Your task to perform on an android device: open app "Venmo" (install if not already installed) Image 0: 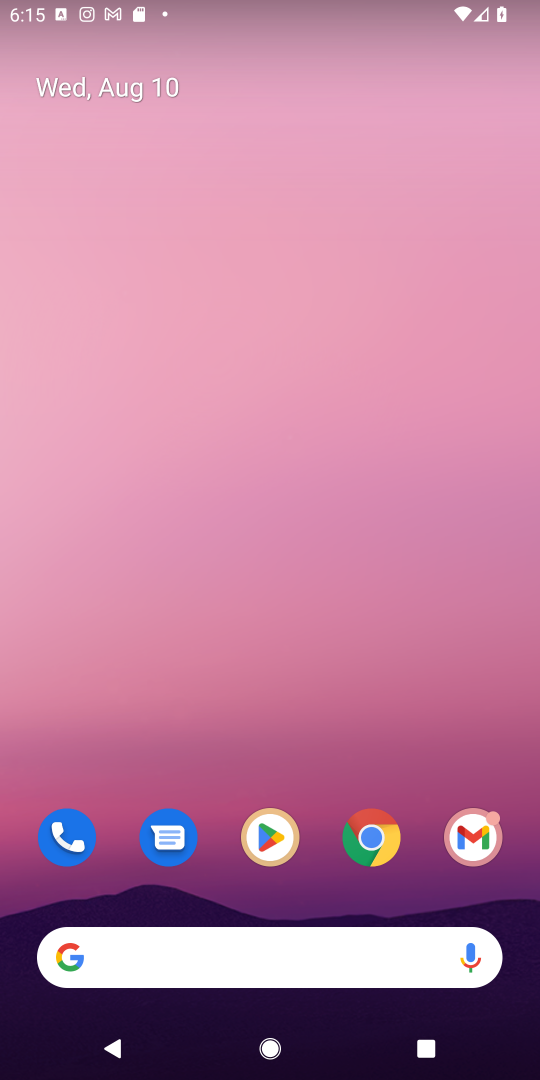
Step 0: click (269, 831)
Your task to perform on an android device: open app "Venmo" (install if not already installed) Image 1: 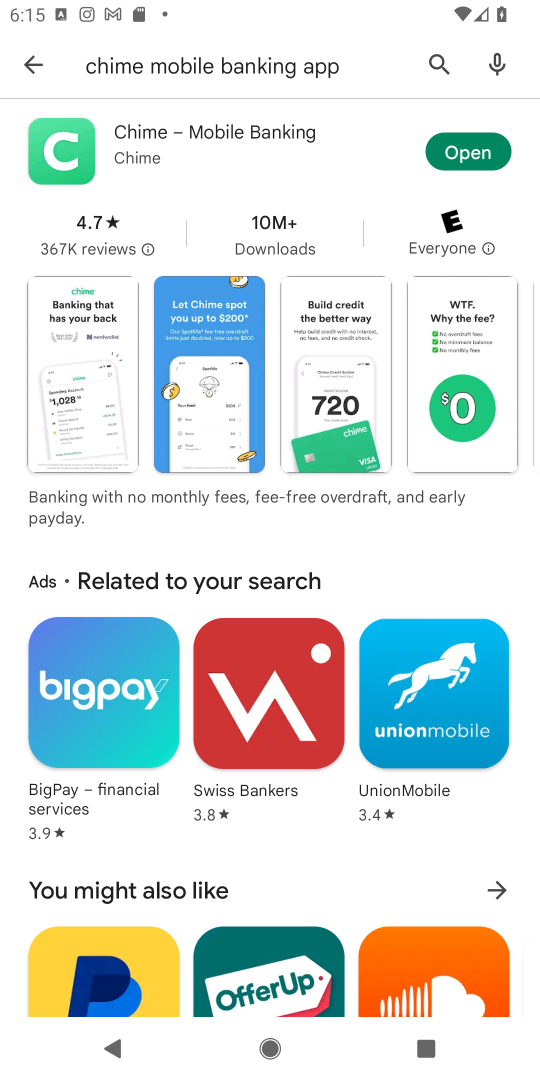
Step 1: click (435, 56)
Your task to perform on an android device: open app "Venmo" (install if not already installed) Image 2: 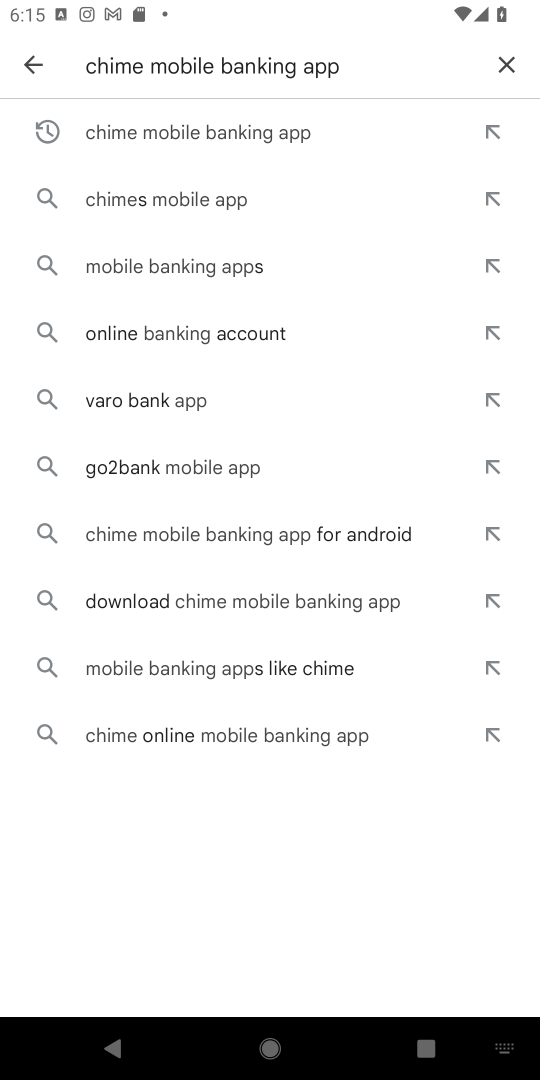
Step 2: click (507, 62)
Your task to perform on an android device: open app "Venmo" (install if not already installed) Image 3: 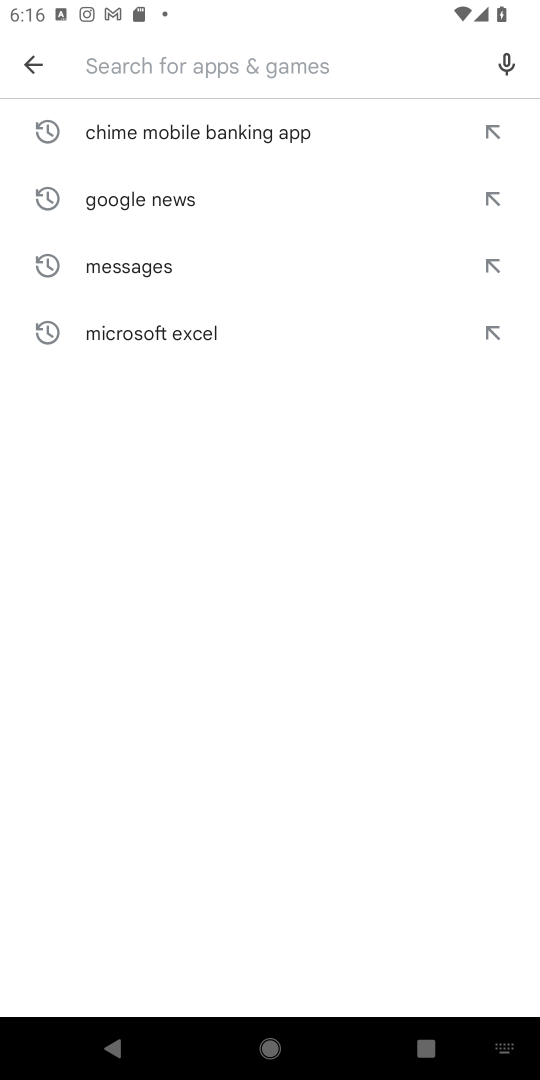
Step 3: type "Venmo"
Your task to perform on an android device: open app "Venmo" (install if not already installed) Image 4: 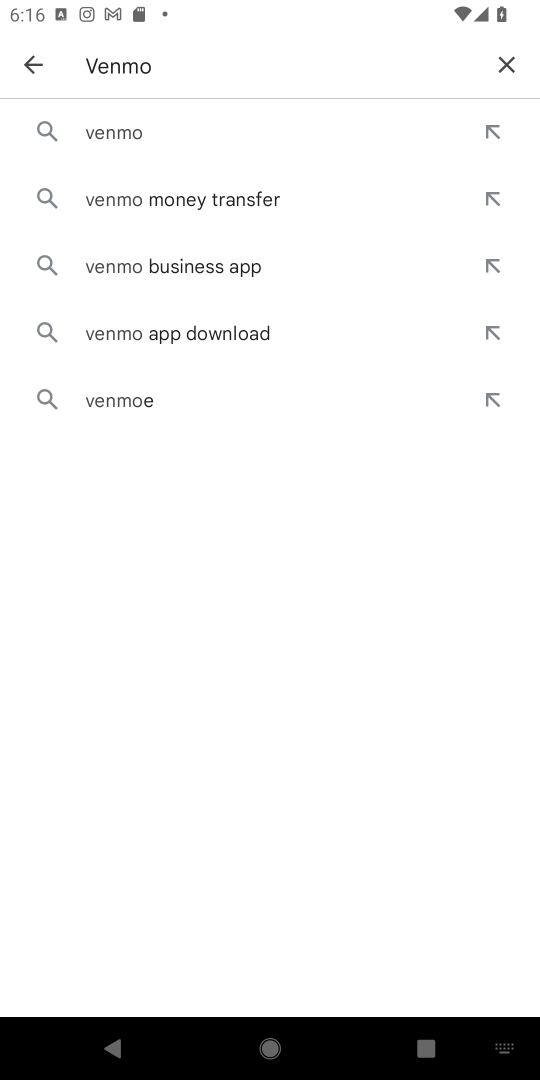
Step 4: click (148, 130)
Your task to perform on an android device: open app "Venmo" (install if not already installed) Image 5: 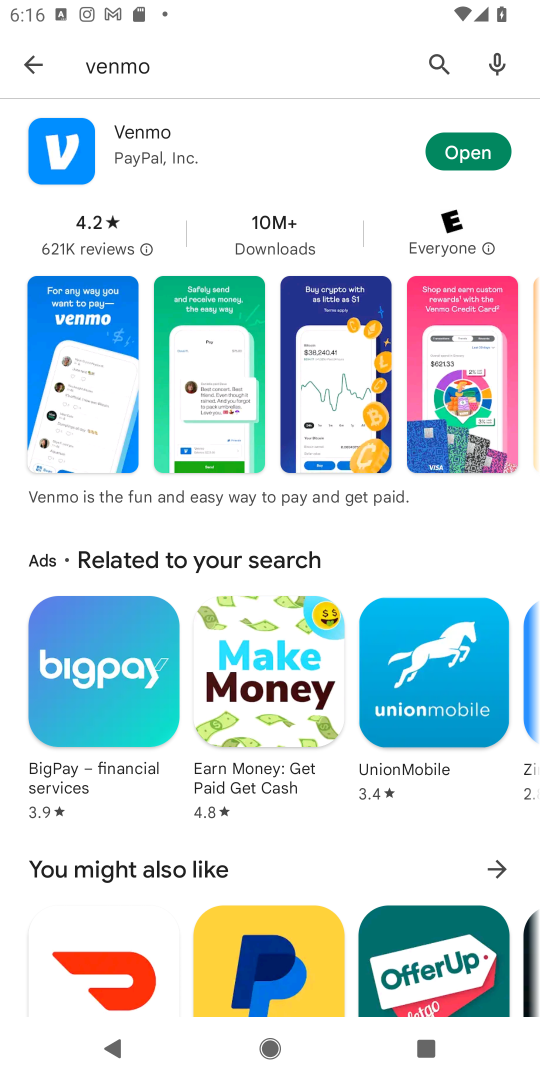
Step 5: click (472, 153)
Your task to perform on an android device: open app "Venmo" (install if not already installed) Image 6: 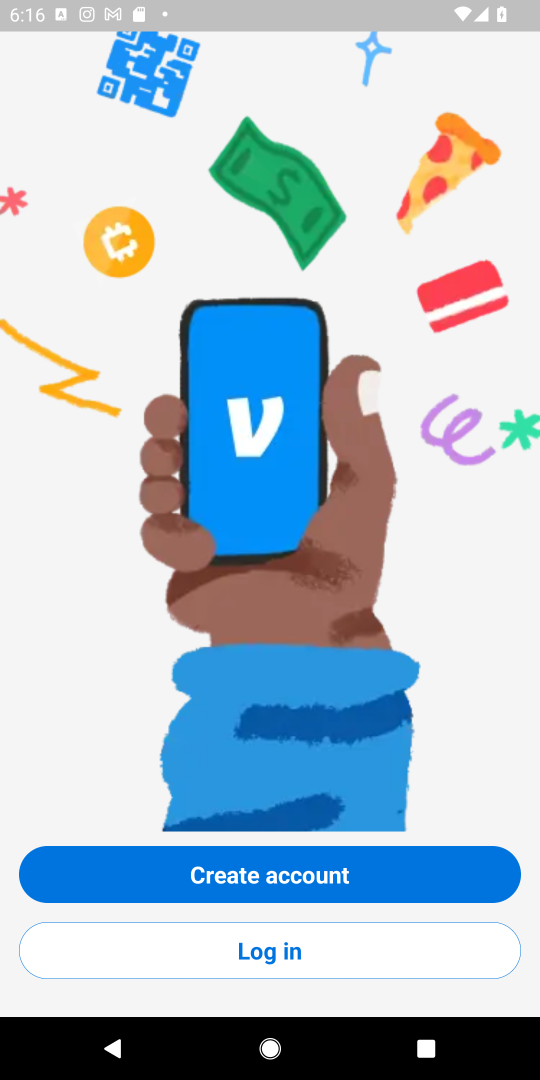
Step 6: task complete